Your task to perform on an android device: Search for seafood restaurants on Google Maps Image 0: 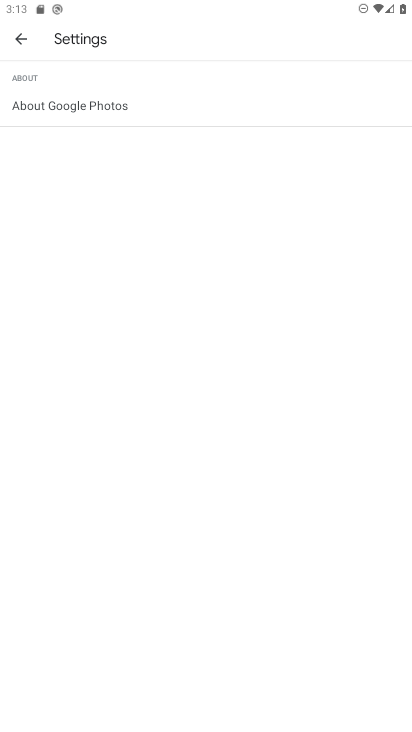
Step 0: press home button
Your task to perform on an android device: Search for seafood restaurants on Google Maps Image 1: 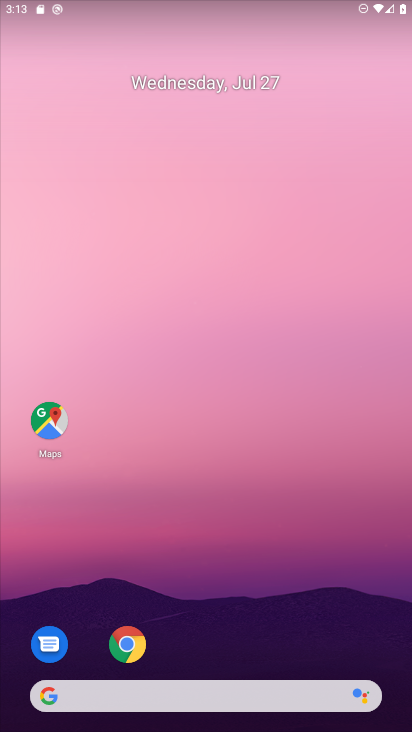
Step 1: click (57, 417)
Your task to perform on an android device: Search for seafood restaurants on Google Maps Image 2: 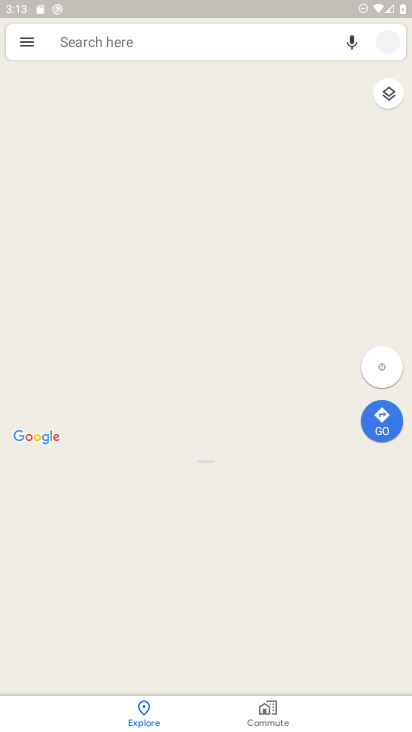
Step 2: click (181, 42)
Your task to perform on an android device: Search for seafood restaurants on Google Maps Image 3: 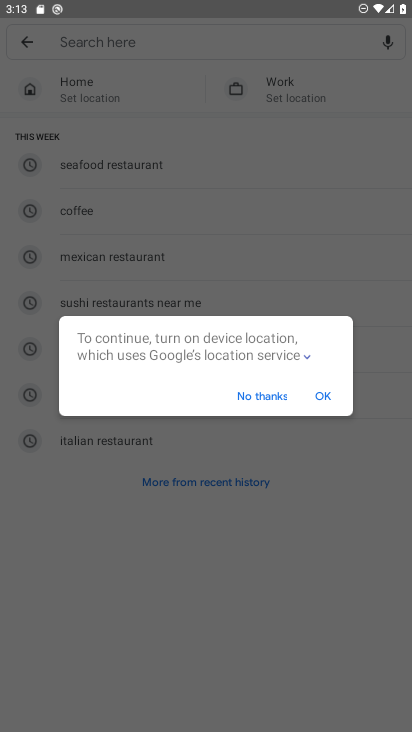
Step 3: type "seafood "
Your task to perform on an android device: Search for seafood restaurants on Google Maps Image 4: 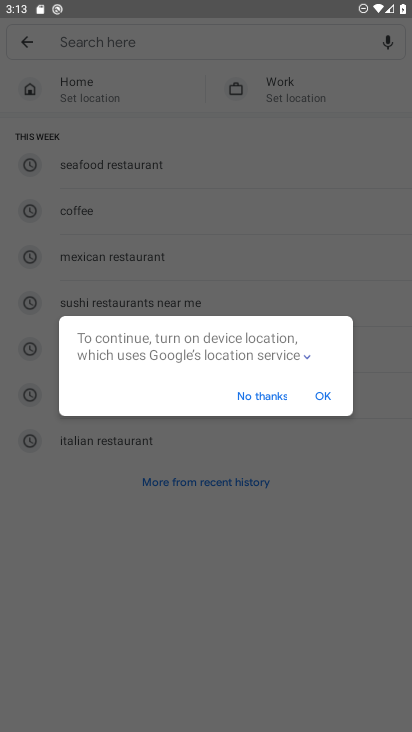
Step 4: click (273, 403)
Your task to perform on an android device: Search for seafood restaurants on Google Maps Image 5: 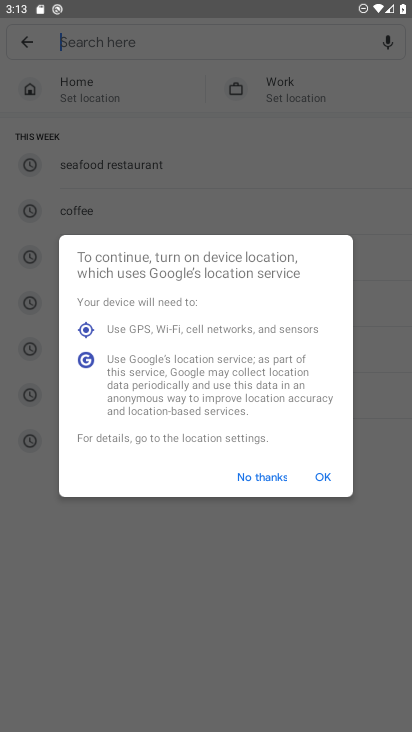
Step 5: click (254, 468)
Your task to perform on an android device: Search for seafood restaurants on Google Maps Image 6: 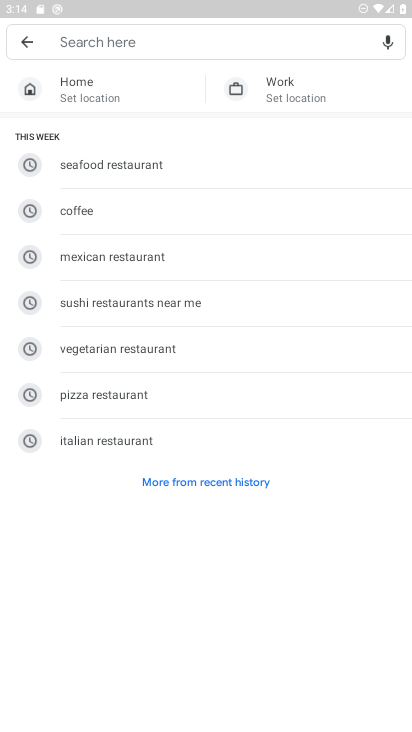
Step 6: type "seafood restaurants"
Your task to perform on an android device: Search for seafood restaurants on Google Maps Image 7: 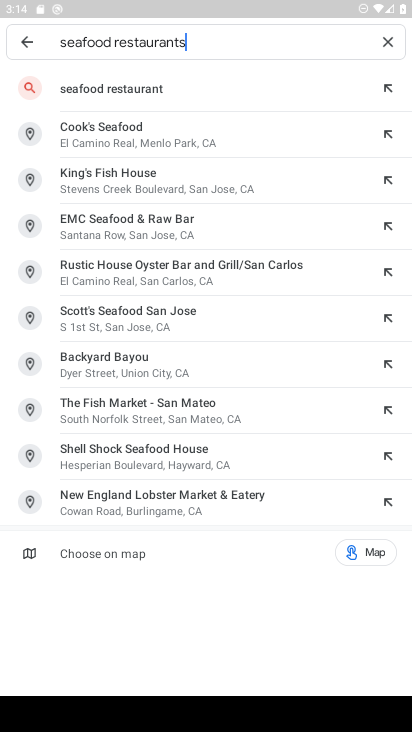
Step 7: click (144, 87)
Your task to perform on an android device: Search for seafood restaurants on Google Maps Image 8: 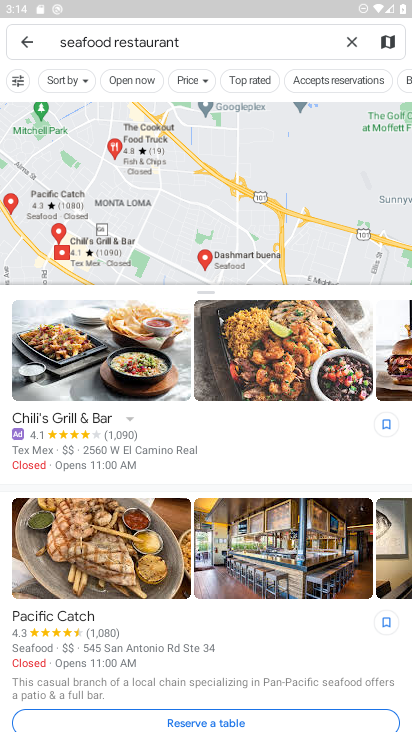
Step 8: task complete